Your task to perform on an android device: Open the map Image 0: 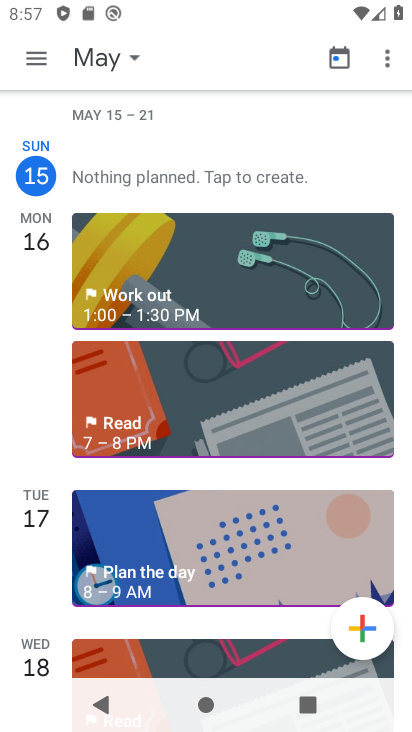
Step 0: press home button
Your task to perform on an android device: Open the map Image 1: 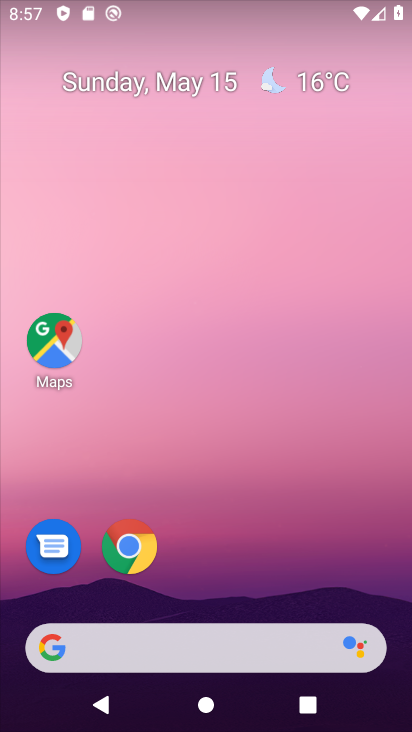
Step 1: click (70, 349)
Your task to perform on an android device: Open the map Image 2: 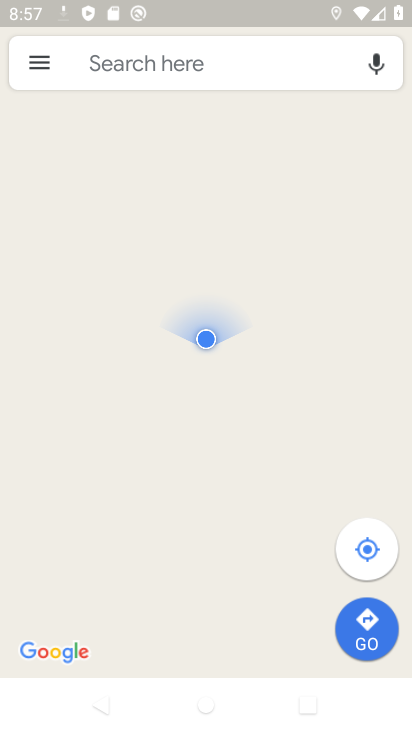
Step 2: task complete